Your task to perform on an android device: What's on my calendar tomorrow? Image 0: 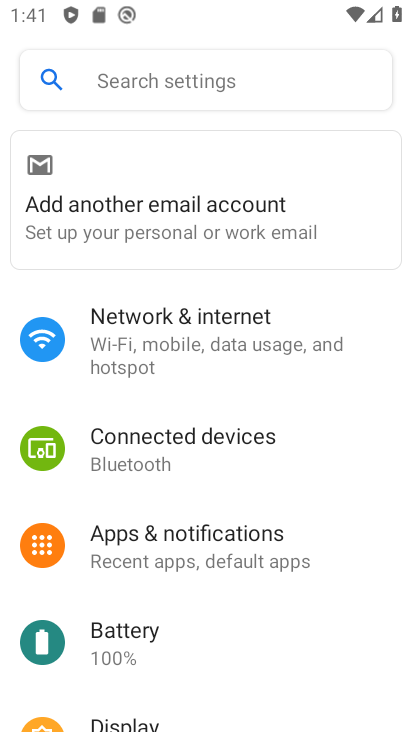
Step 0: press back button
Your task to perform on an android device: What's on my calendar tomorrow? Image 1: 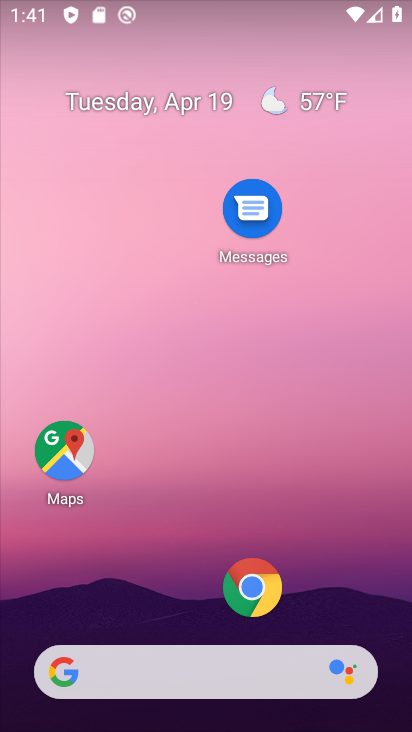
Step 1: drag from (107, 548) to (184, 83)
Your task to perform on an android device: What's on my calendar tomorrow? Image 2: 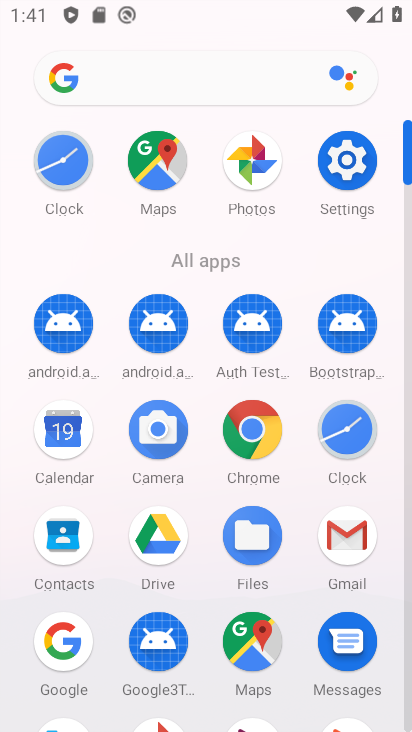
Step 2: click (55, 439)
Your task to perform on an android device: What's on my calendar tomorrow? Image 3: 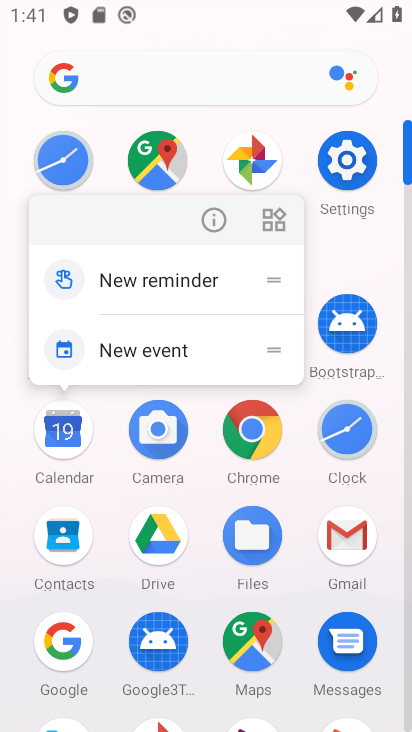
Step 3: click (52, 430)
Your task to perform on an android device: What's on my calendar tomorrow? Image 4: 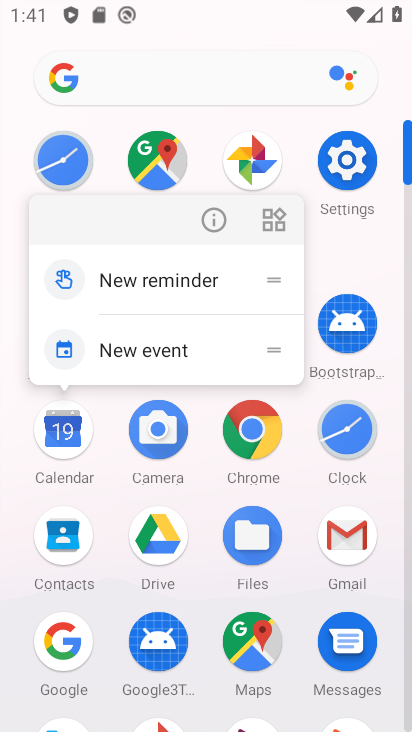
Step 4: click (75, 426)
Your task to perform on an android device: What's on my calendar tomorrow? Image 5: 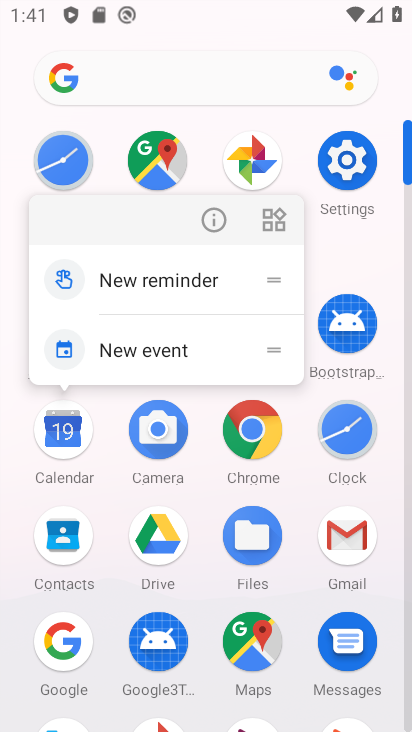
Step 5: click (65, 438)
Your task to perform on an android device: What's on my calendar tomorrow? Image 6: 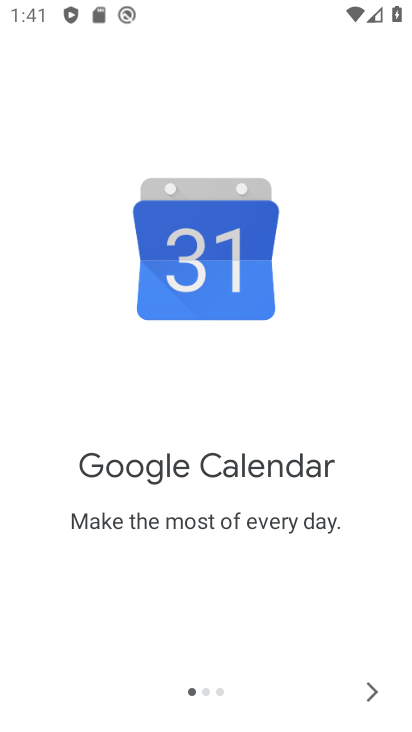
Step 6: click (366, 694)
Your task to perform on an android device: What's on my calendar tomorrow? Image 7: 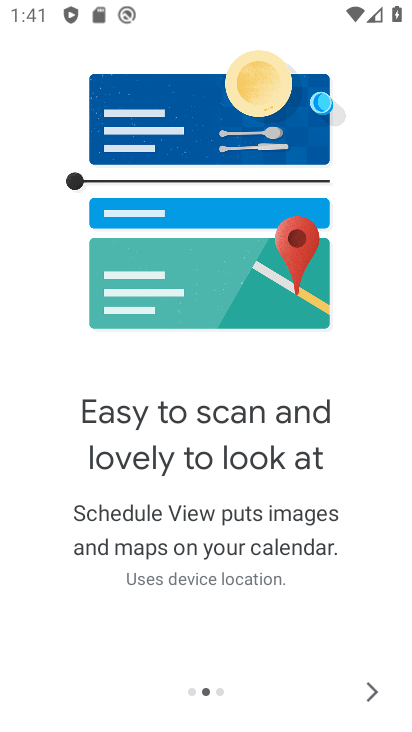
Step 7: click (366, 694)
Your task to perform on an android device: What's on my calendar tomorrow? Image 8: 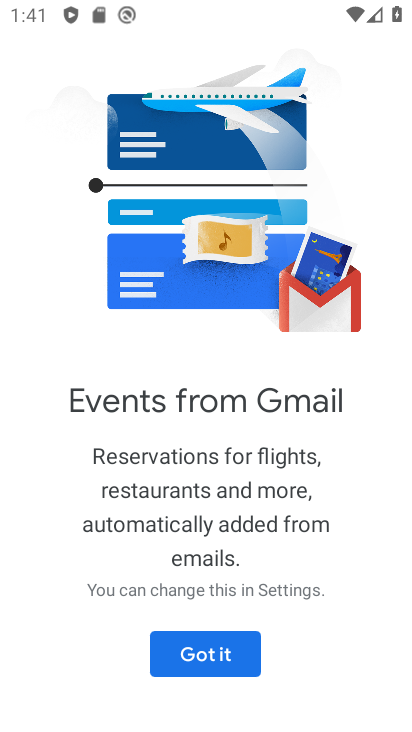
Step 8: click (180, 652)
Your task to perform on an android device: What's on my calendar tomorrow? Image 9: 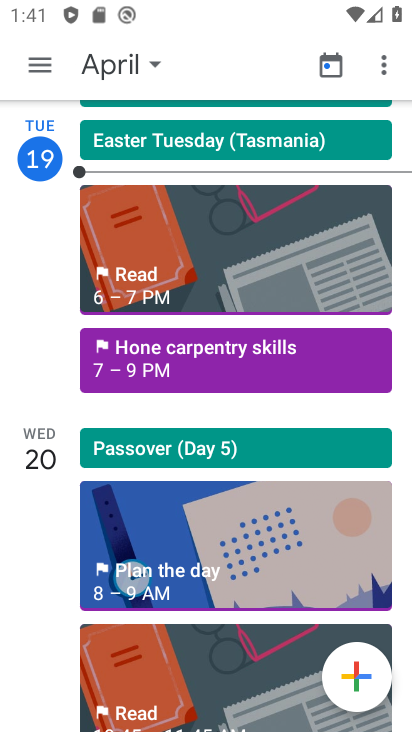
Step 9: task complete